Your task to perform on an android device: move a message to another label in the gmail app Image 0: 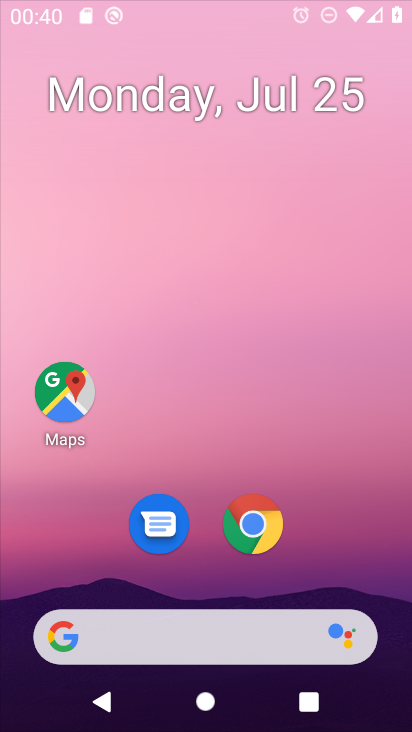
Step 0: press home button
Your task to perform on an android device: move a message to another label in the gmail app Image 1: 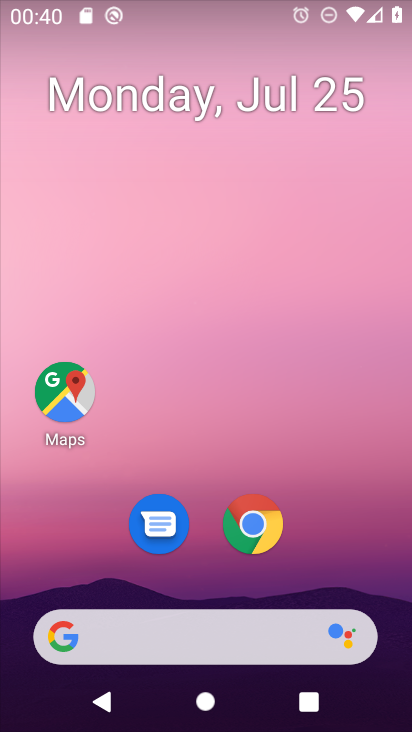
Step 1: drag from (205, 642) to (283, 173)
Your task to perform on an android device: move a message to another label in the gmail app Image 2: 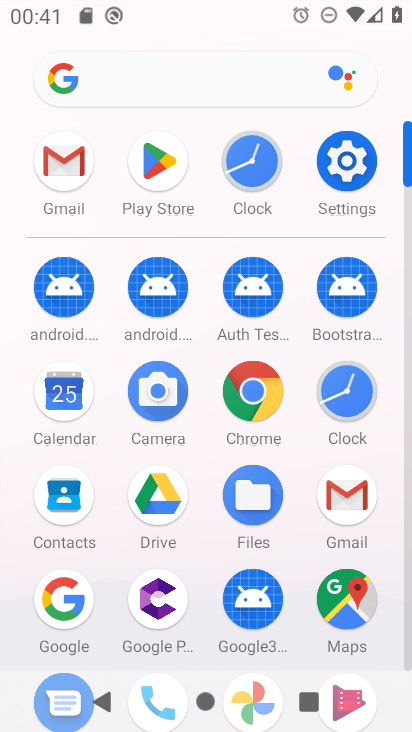
Step 2: click (62, 176)
Your task to perform on an android device: move a message to another label in the gmail app Image 3: 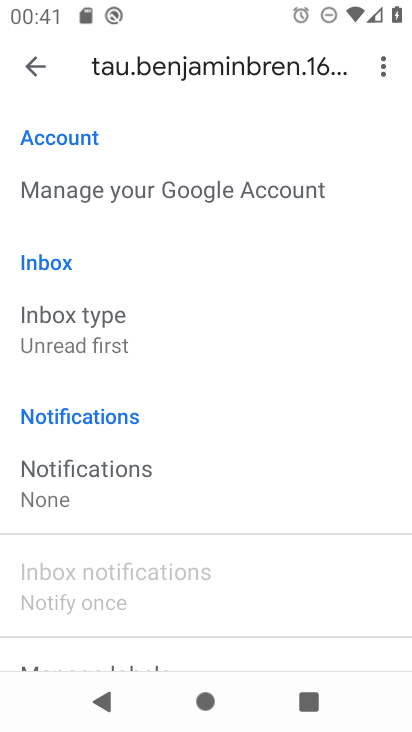
Step 3: click (36, 61)
Your task to perform on an android device: move a message to another label in the gmail app Image 4: 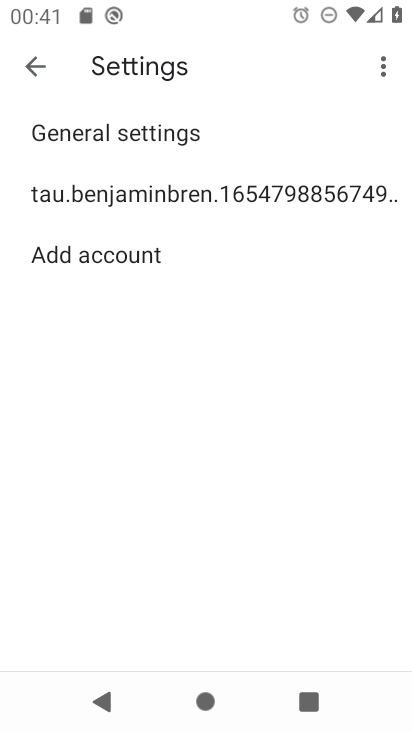
Step 4: click (34, 65)
Your task to perform on an android device: move a message to another label in the gmail app Image 5: 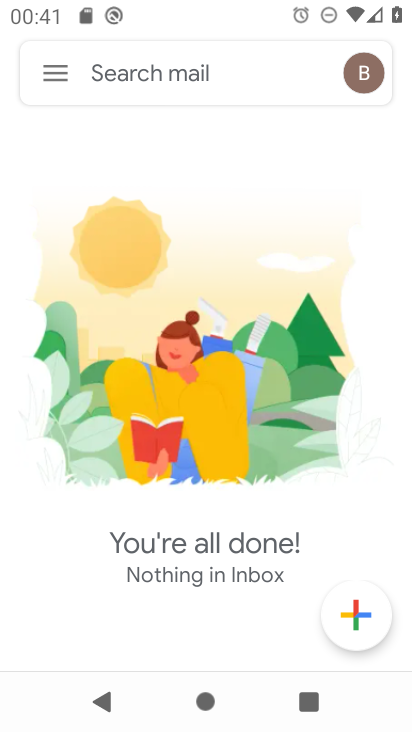
Step 5: task complete